Your task to perform on an android device: turn on showing notifications on the lock screen Image 0: 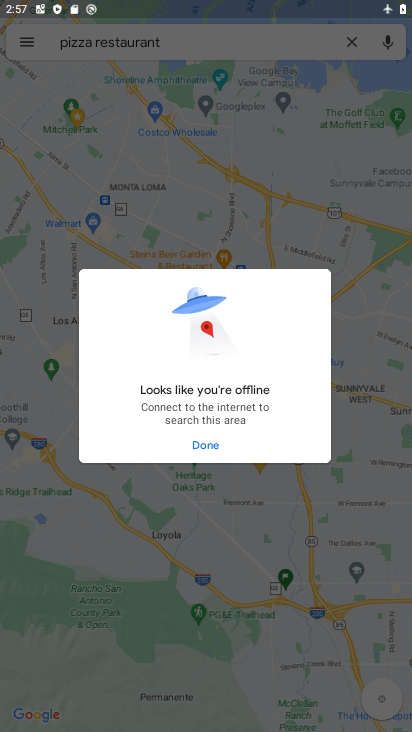
Step 0: press home button
Your task to perform on an android device: turn on showing notifications on the lock screen Image 1: 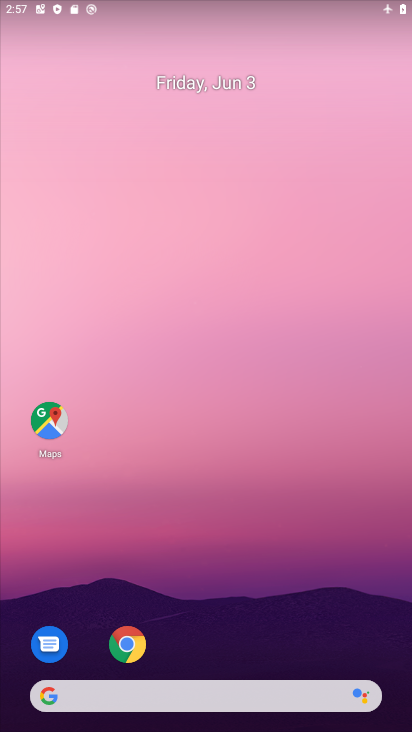
Step 1: drag from (235, 647) to (229, 256)
Your task to perform on an android device: turn on showing notifications on the lock screen Image 2: 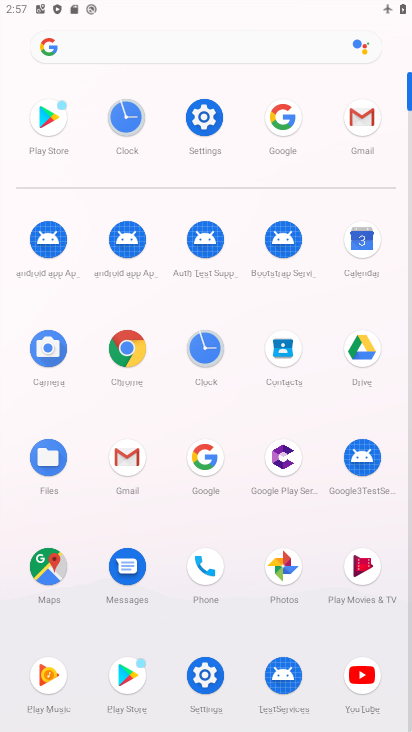
Step 2: click (215, 124)
Your task to perform on an android device: turn on showing notifications on the lock screen Image 3: 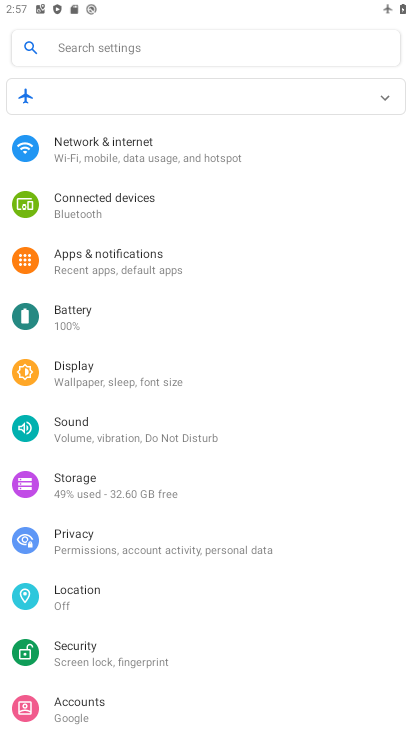
Step 3: click (158, 264)
Your task to perform on an android device: turn on showing notifications on the lock screen Image 4: 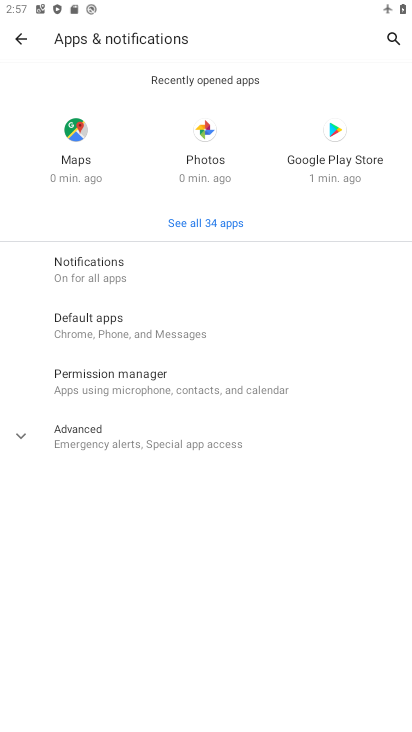
Step 4: click (133, 273)
Your task to perform on an android device: turn on showing notifications on the lock screen Image 5: 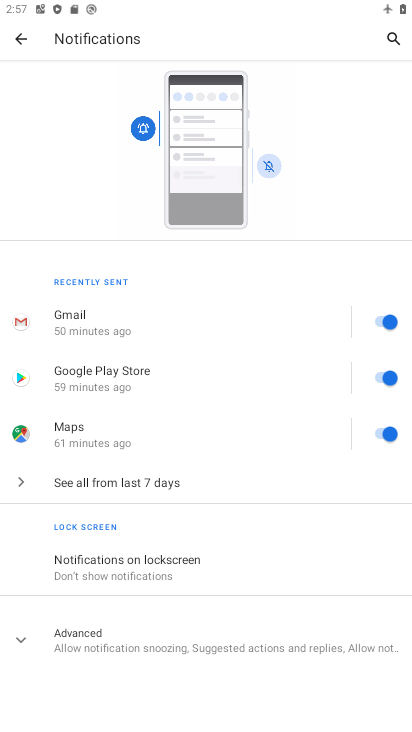
Step 5: click (160, 573)
Your task to perform on an android device: turn on showing notifications on the lock screen Image 6: 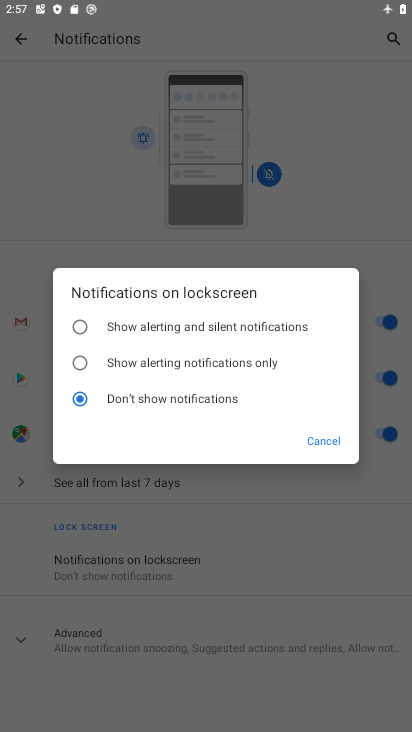
Step 6: click (201, 328)
Your task to perform on an android device: turn on showing notifications on the lock screen Image 7: 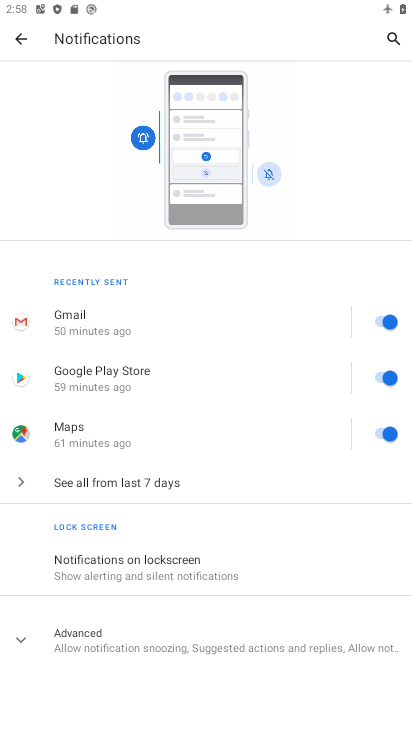
Step 7: task complete